Your task to perform on an android device: set the timer Image 0: 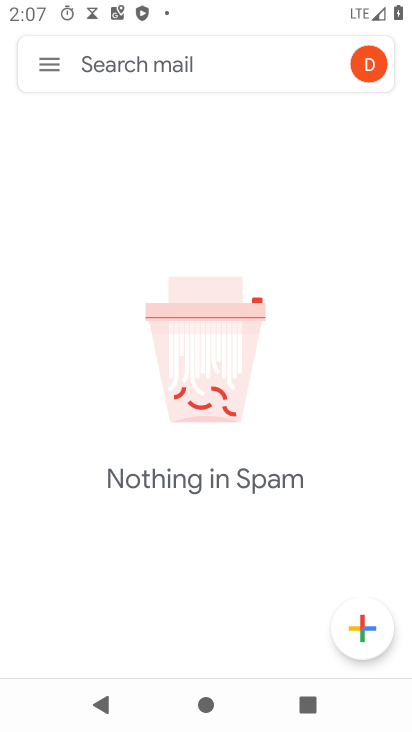
Step 0: press home button
Your task to perform on an android device: set the timer Image 1: 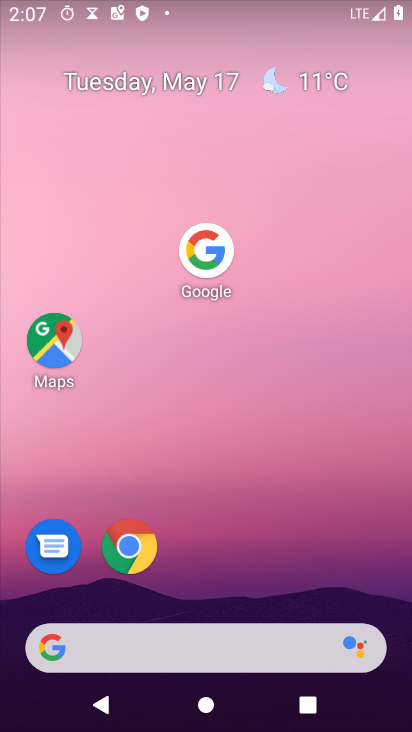
Step 1: drag from (172, 594) to (281, 153)
Your task to perform on an android device: set the timer Image 2: 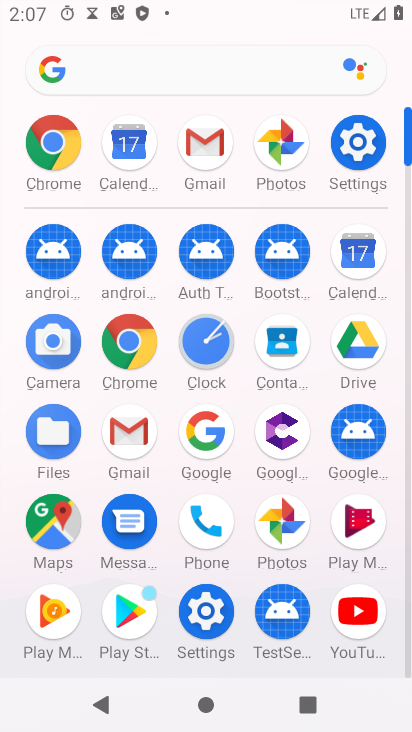
Step 2: click (216, 350)
Your task to perform on an android device: set the timer Image 3: 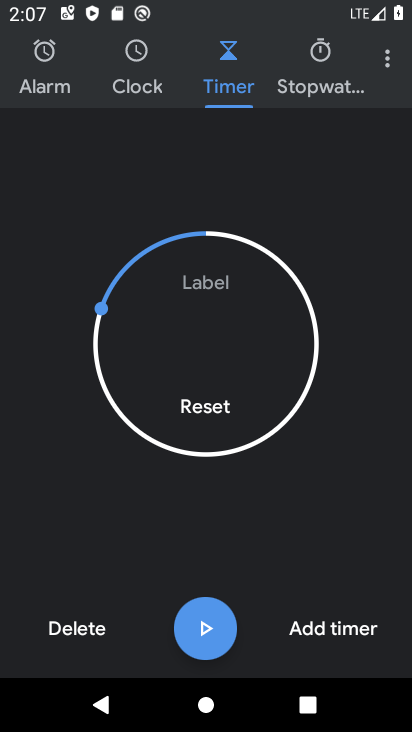
Step 3: click (71, 636)
Your task to perform on an android device: set the timer Image 4: 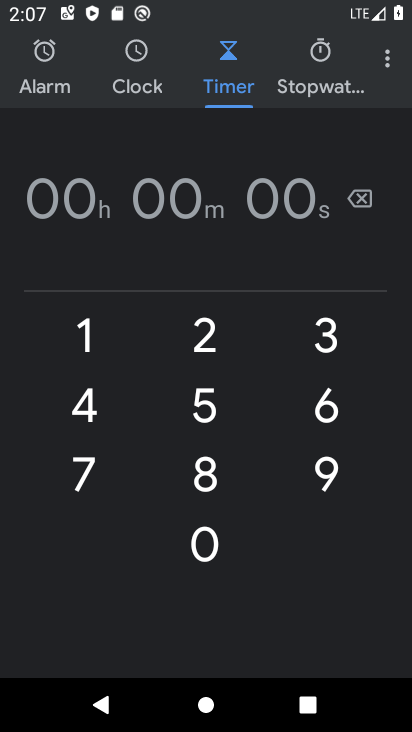
Step 4: click (193, 488)
Your task to perform on an android device: set the timer Image 5: 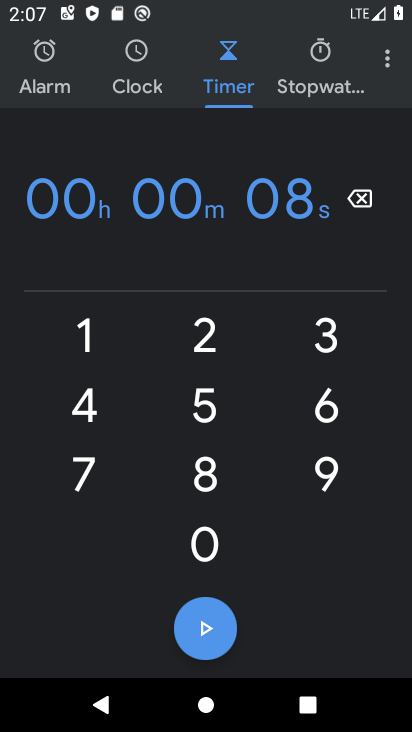
Step 5: click (200, 357)
Your task to perform on an android device: set the timer Image 6: 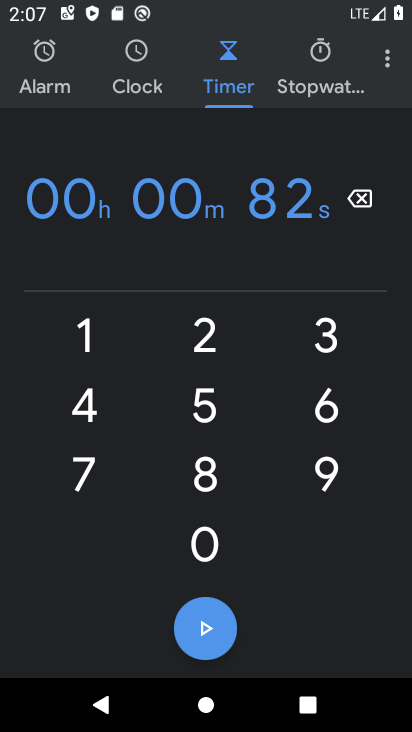
Step 6: click (217, 640)
Your task to perform on an android device: set the timer Image 7: 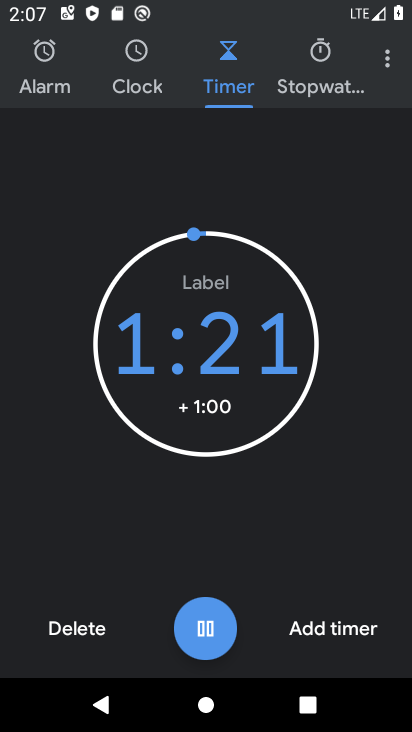
Step 7: click (211, 633)
Your task to perform on an android device: set the timer Image 8: 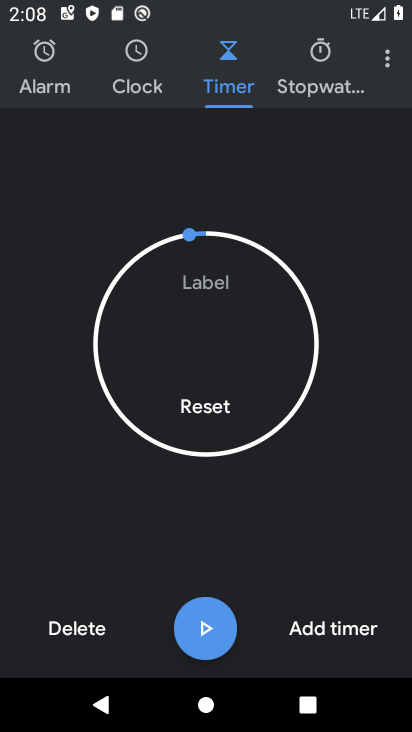
Step 8: task complete